Your task to perform on an android device: turn off sleep mode Image 0: 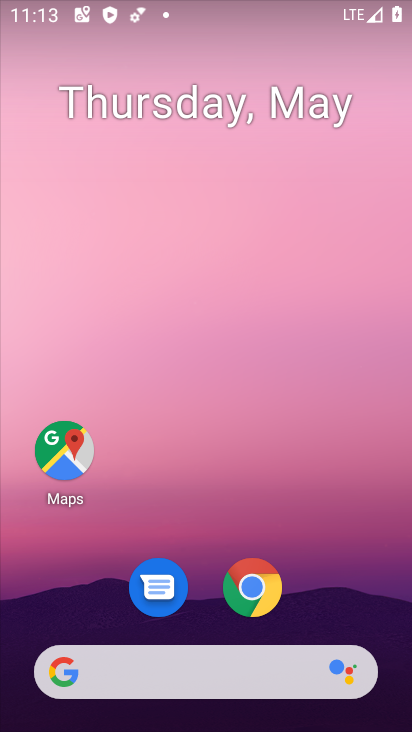
Step 0: drag from (77, 642) to (236, 90)
Your task to perform on an android device: turn off sleep mode Image 1: 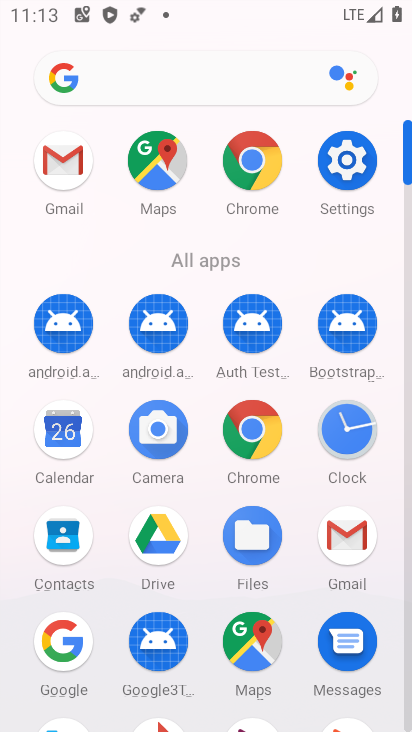
Step 1: drag from (175, 673) to (249, 341)
Your task to perform on an android device: turn off sleep mode Image 2: 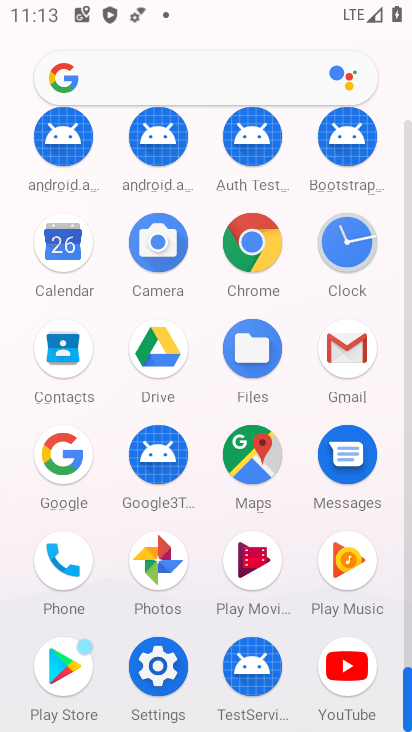
Step 2: click (175, 686)
Your task to perform on an android device: turn off sleep mode Image 3: 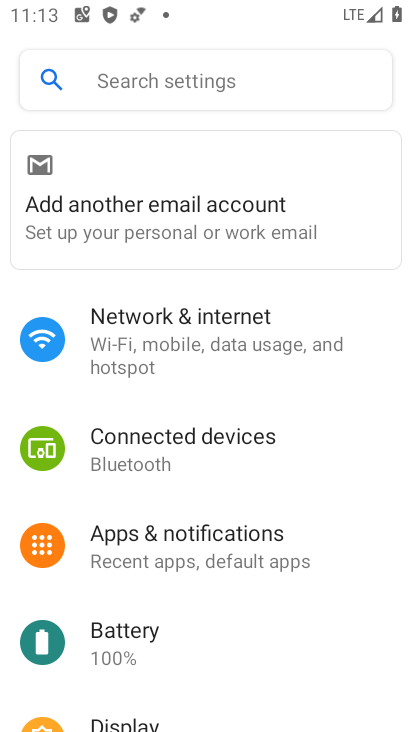
Step 3: drag from (189, 649) to (239, 412)
Your task to perform on an android device: turn off sleep mode Image 4: 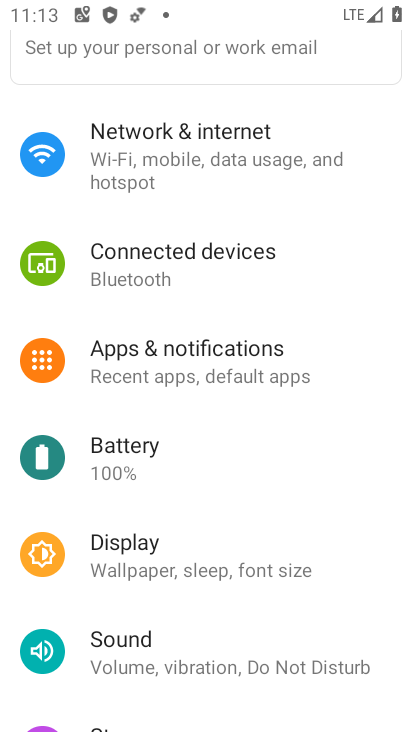
Step 4: click (138, 561)
Your task to perform on an android device: turn off sleep mode Image 5: 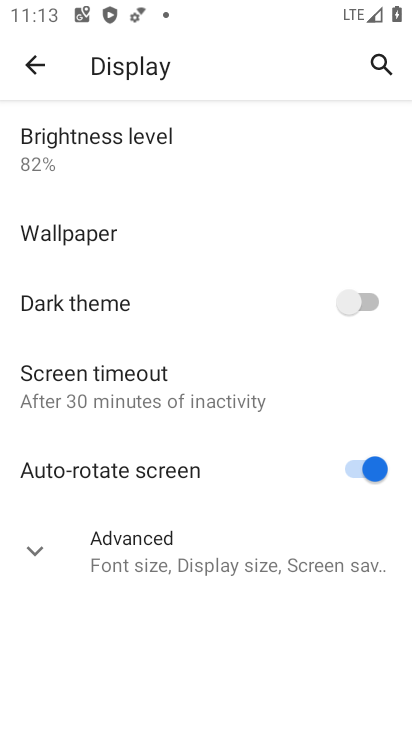
Step 5: click (246, 560)
Your task to perform on an android device: turn off sleep mode Image 6: 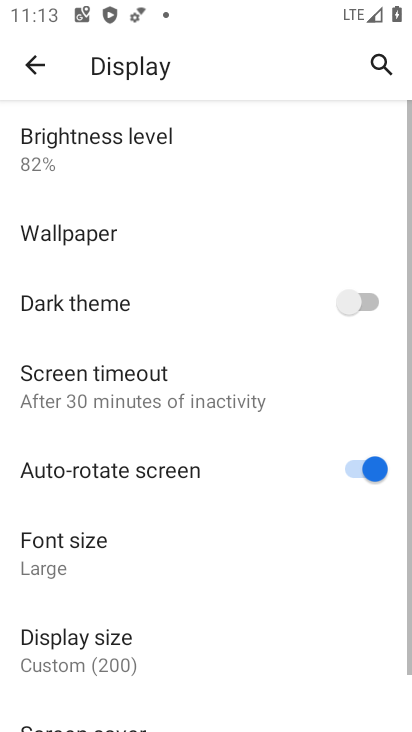
Step 6: task complete